Your task to perform on an android device: open app "Airtel Thanks" Image 0: 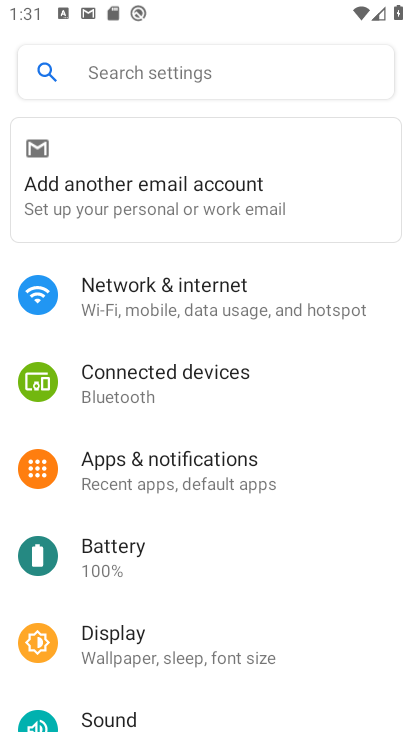
Step 0: press home button
Your task to perform on an android device: open app "Airtel Thanks" Image 1: 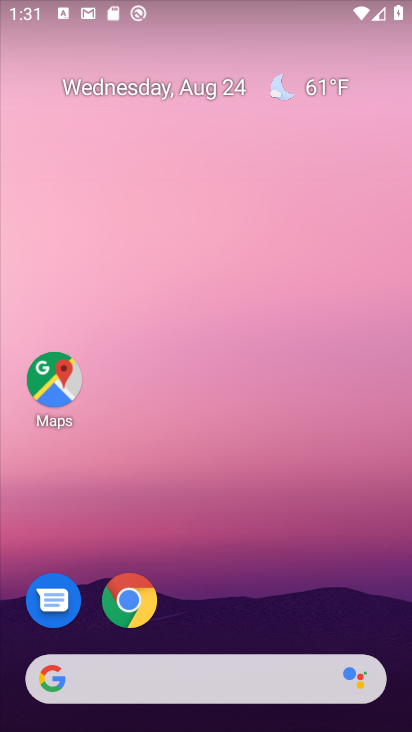
Step 1: drag from (257, 633) to (176, 91)
Your task to perform on an android device: open app "Airtel Thanks" Image 2: 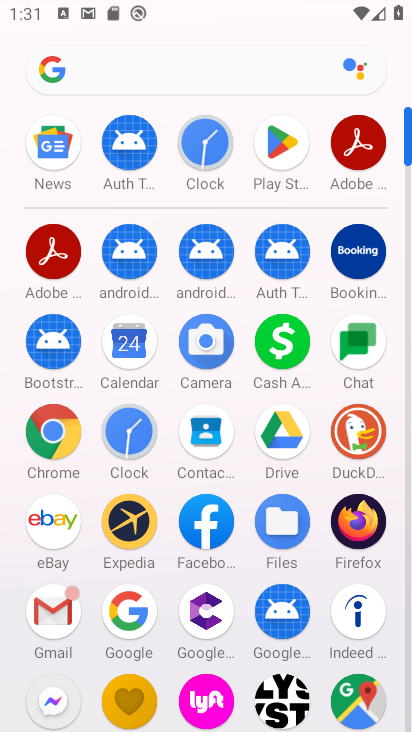
Step 2: click (274, 159)
Your task to perform on an android device: open app "Airtel Thanks" Image 3: 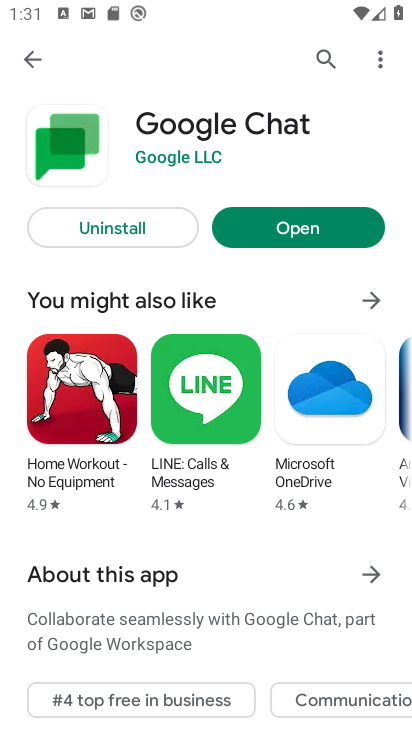
Step 3: click (340, 56)
Your task to perform on an android device: open app "Airtel Thanks" Image 4: 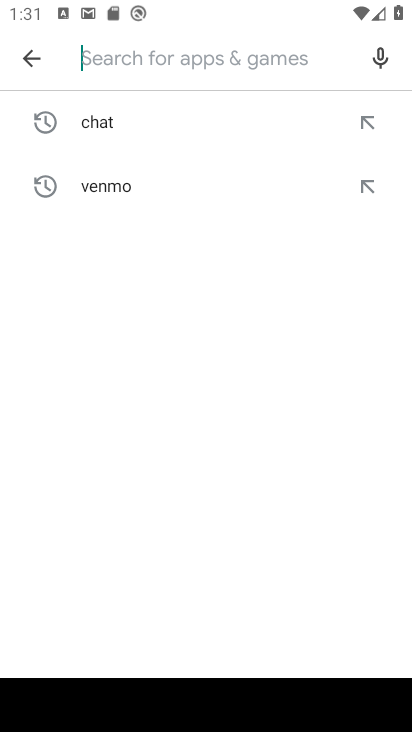
Step 4: type "airtel"
Your task to perform on an android device: open app "Airtel Thanks" Image 5: 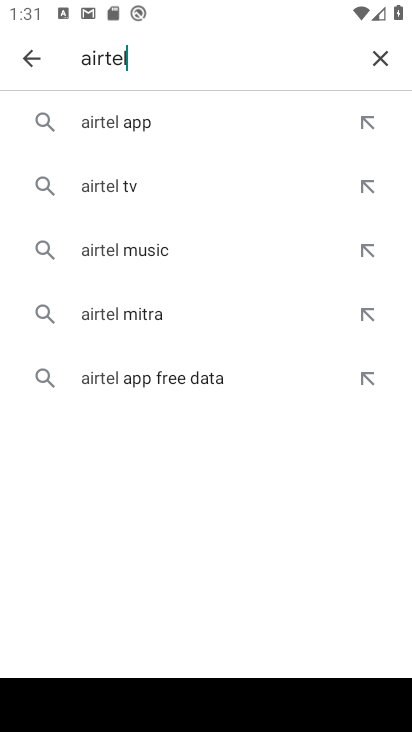
Step 5: click (264, 120)
Your task to perform on an android device: open app "Airtel Thanks" Image 6: 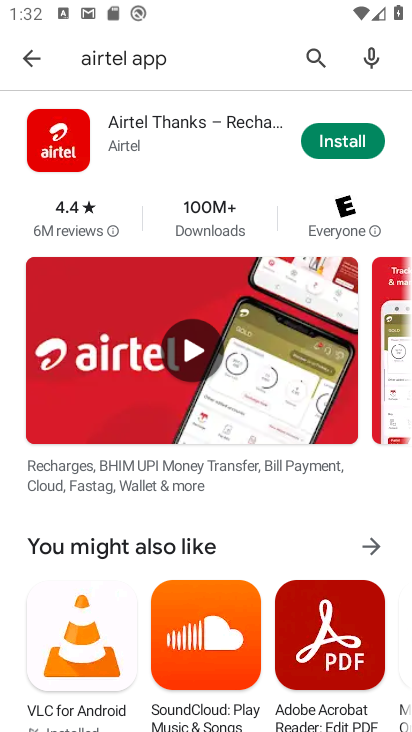
Step 6: click (330, 137)
Your task to perform on an android device: open app "Airtel Thanks" Image 7: 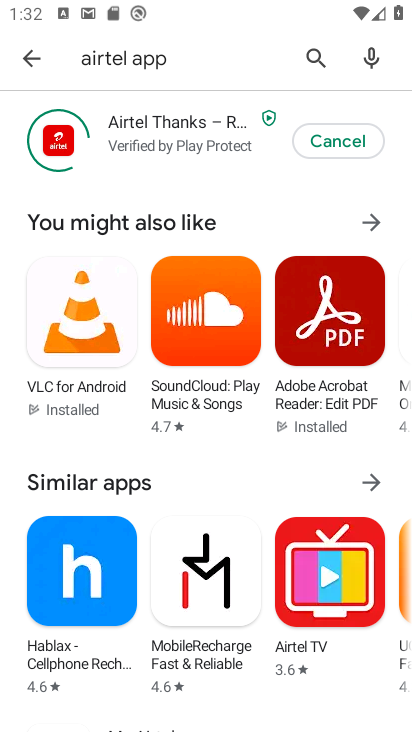
Step 7: task complete